Your task to perform on an android device: turn on airplane mode Image 0: 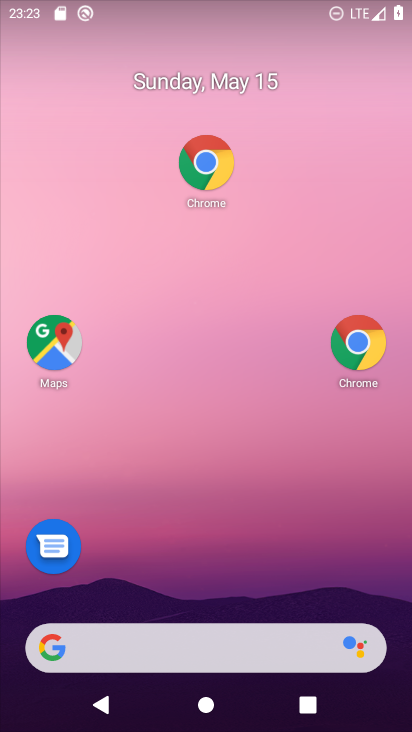
Step 0: drag from (273, 320) to (300, 196)
Your task to perform on an android device: turn on airplane mode Image 1: 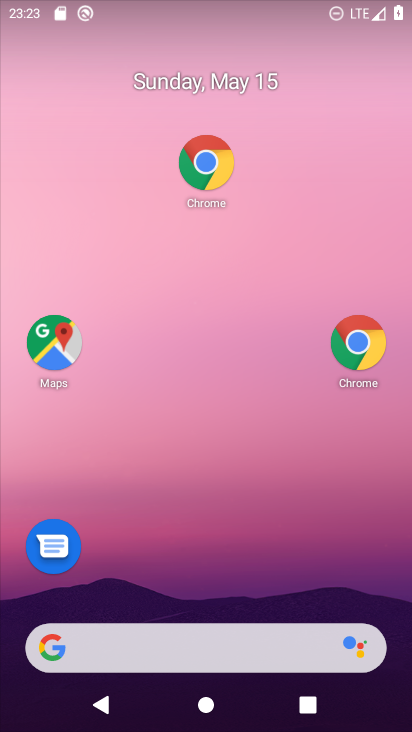
Step 1: drag from (203, 543) to (284, 99)
Your task to perform on an android device: turn on airplane mode Image 2: 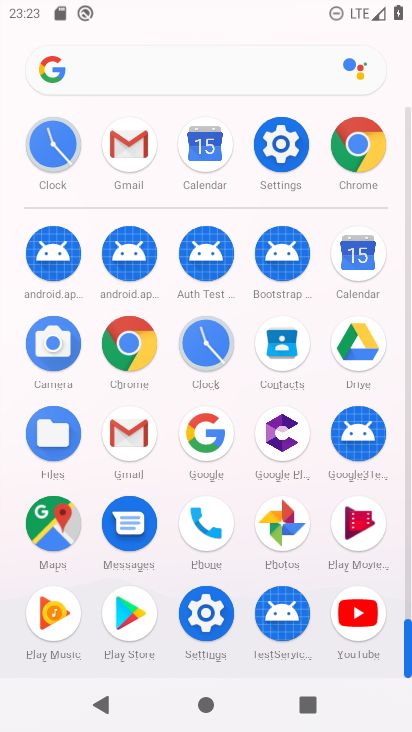
Step 2: click (283, 144)
Your task to perform on an android device: turn on airplane mode Image 3: 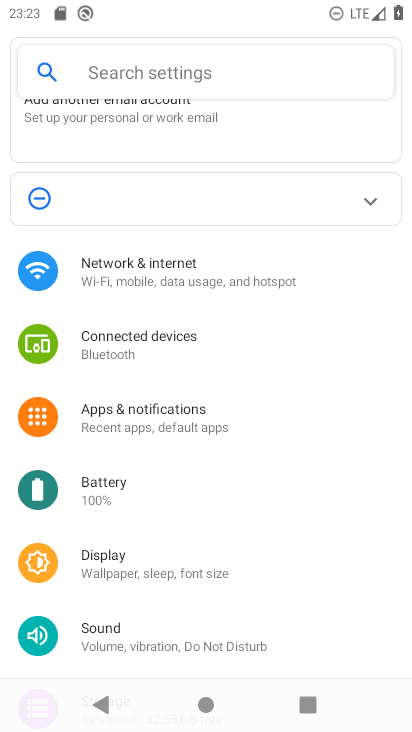
Step 3: click (167, 257)
Your task to perform on an android device: turn on airplane mode Image 4: 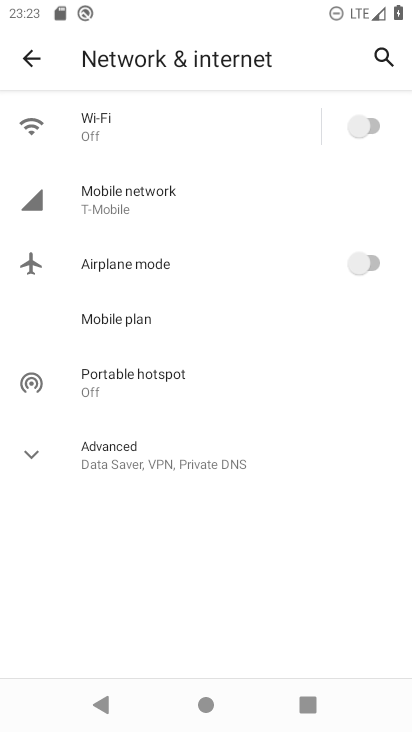
Step 4: click (361, 264)
Your task to perform on an android device: turn on airplane mode Image 5: 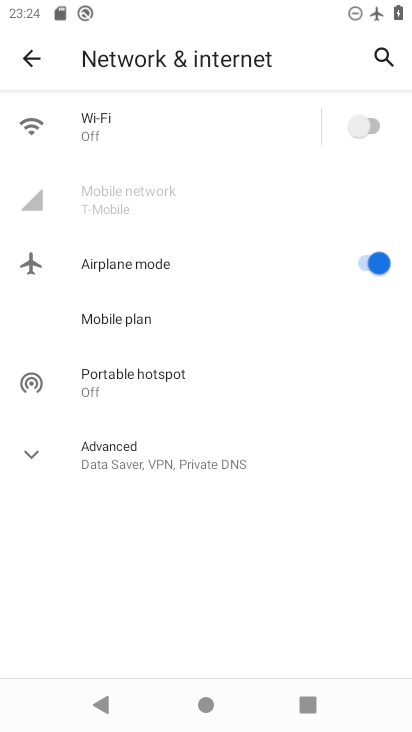
Step 5: task complete